Your task to perform on an android device: Go to network settings Image 0: 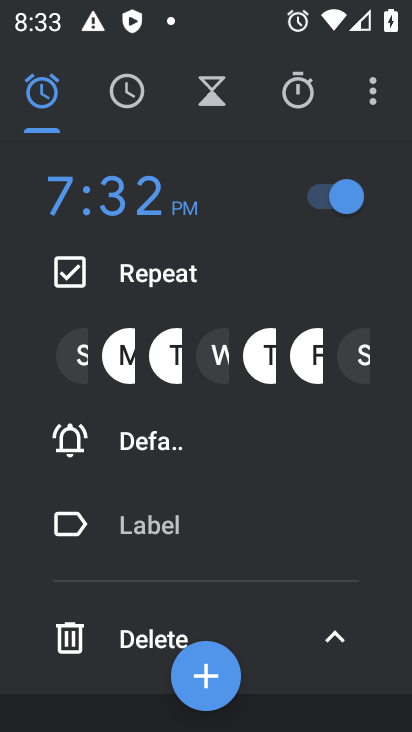
Step 0: press home button
Your task to perform on an android device: Go to network settings Image 1: 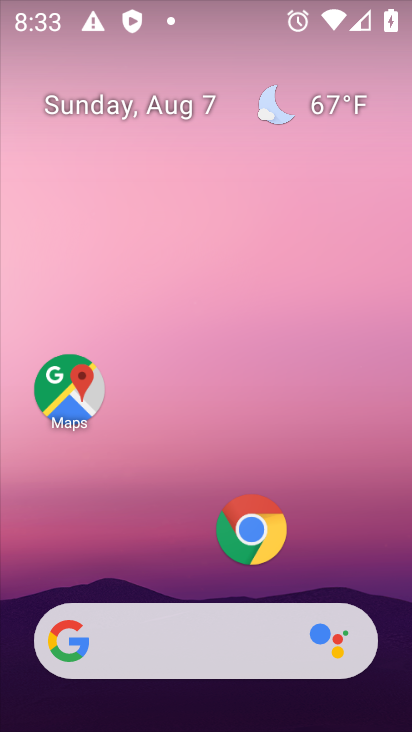
Step 1: drag from (170, 590) to (294, 31)
Your task to perform on an android device: Go to network settings Image 2: 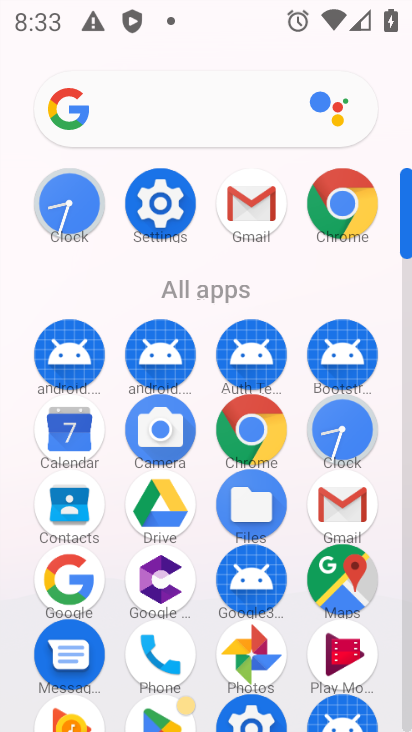
Step 2: click (163, 218)
Your task to perform on an android device: Go to network settings Image 3: 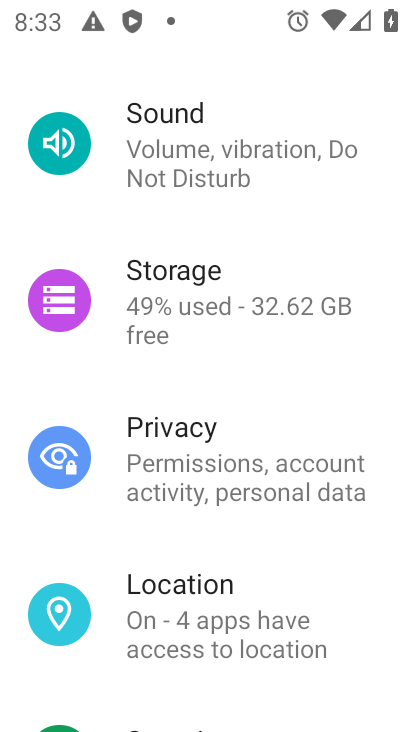
Step 3: drag from (218, 355) to (210, 652)
Your task to perform on an android device: Go to network settings Image 4: 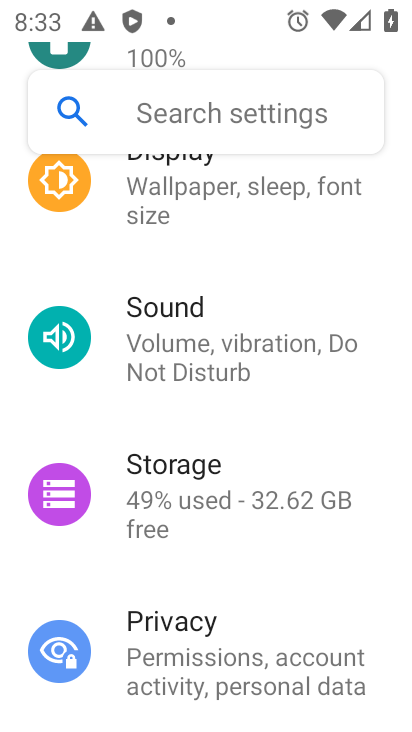
Step 4: drag from (245, 284) to (248, 719)
Your task to perform on an android device: Go to network settings Image 5: 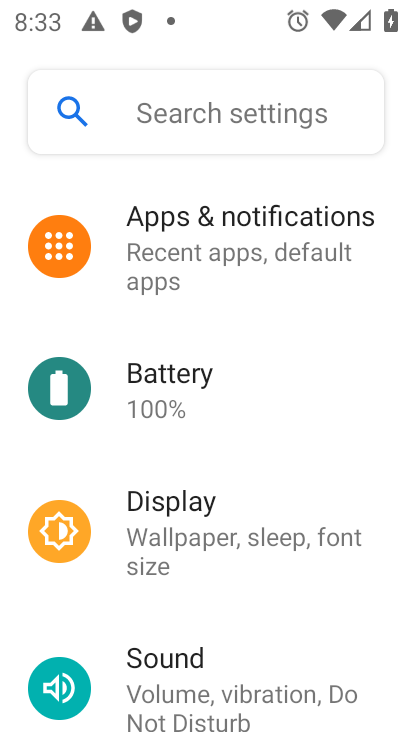
Step 5: drag from (266, 326) to (251, 724)
Your task to perform on an android device: Go to network settings Image 6: 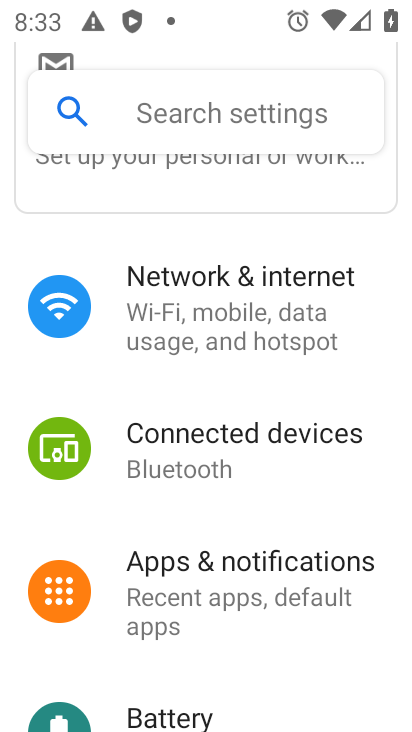
Step 6: click (207, 323)
Your task to perform on an android device: Go to network settings Image 7: 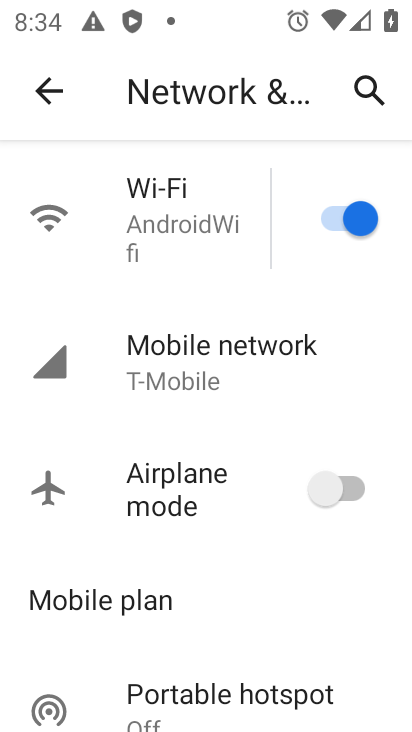
Step 7: task complete